Your task to perform on an android device: check the backup settings in the google photos Image 0: 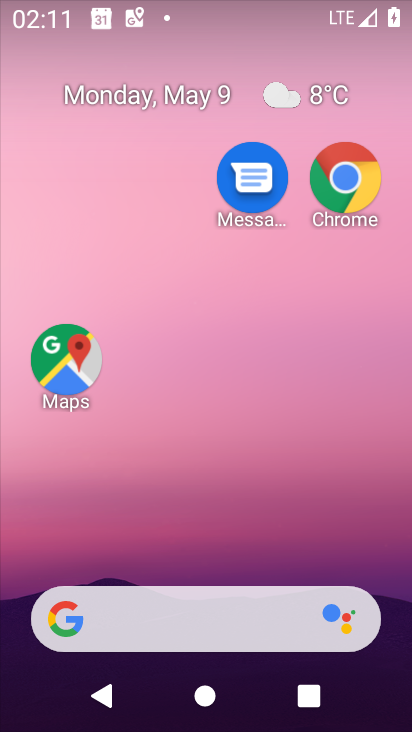
Step 0: drag from (244, 419) to (192, 2)
Your task to perform on an android device: check the backup settings in the google photos Image 1: 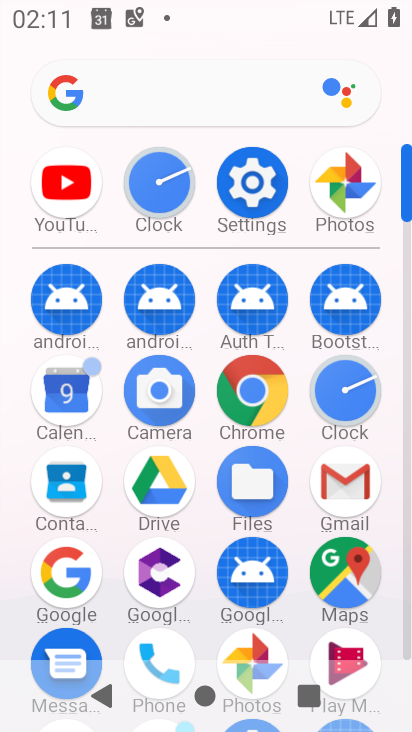
Step 1: click (260, 640)
Your task to perform on an android device: check the backup settings in the google photos Image 2: 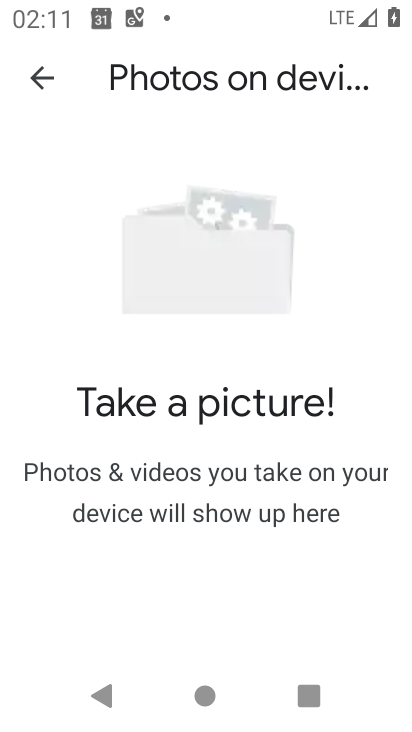
Step 2: click (40, 84)
Your task to perform on an android device: check the backup settings in the google photos Image 3: 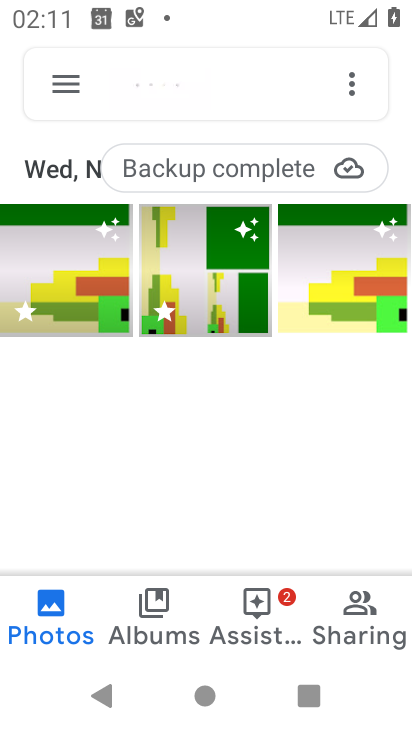
Step 3: click (71, 89)
Your task to perform on an android device: check the backup settings in the google photos Image 4: 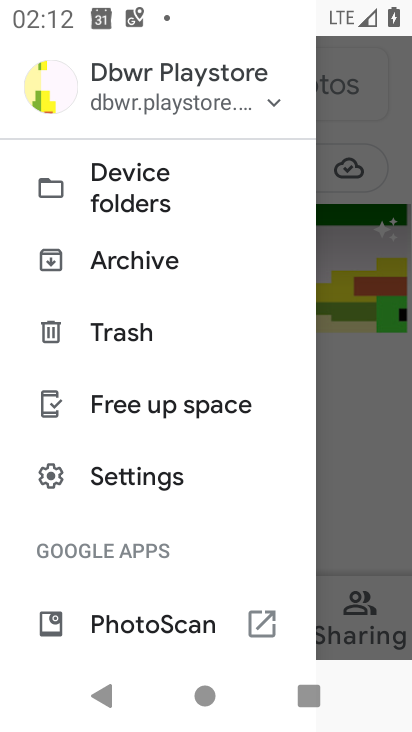
Step 4: click (137, 463)
Your task to perform on an android device: check the backup settings in the google photos Image 5: 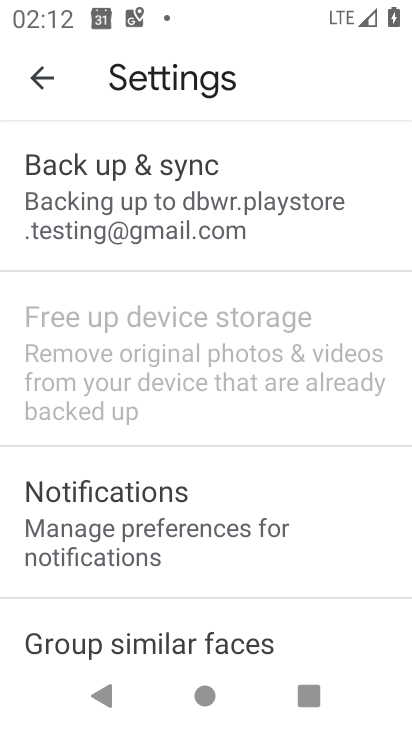
Step 5: click (211, 211)
Your task to perform on an android device: check the backup settings in the google photos Image 6: 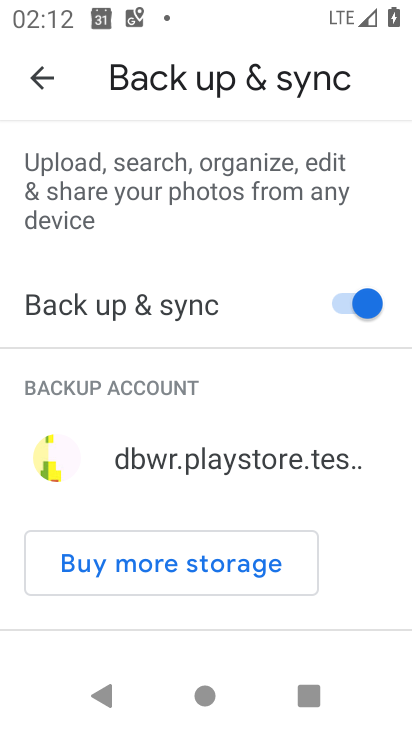
Step 6: task complete